Your task to perform on an android device: Go to settings Image 0: 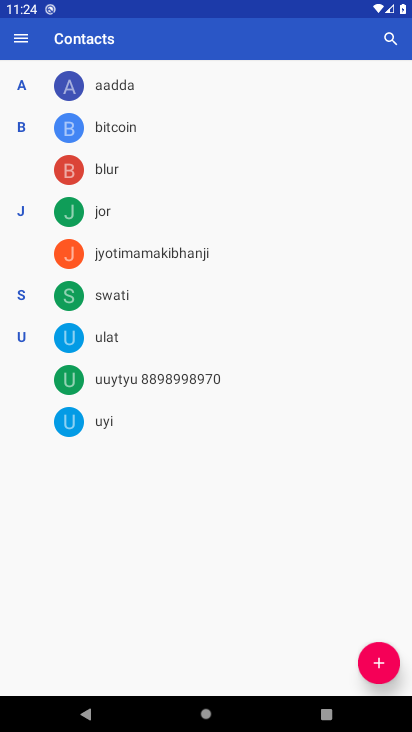
Step 0: press home button
Your task to perform on an android device: Go to settings Image 1: 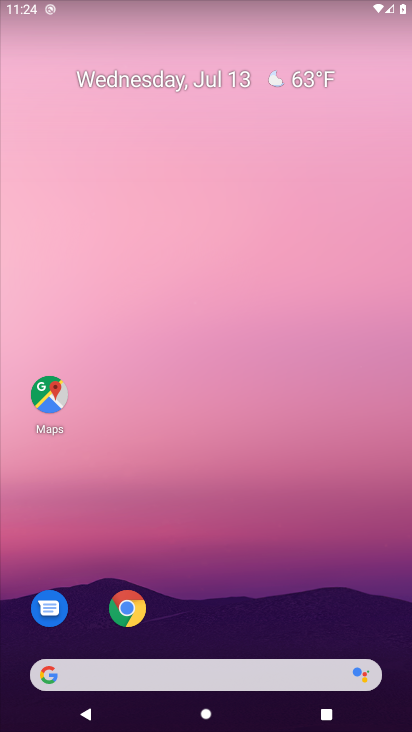
Step 1: drag from (224, 532) to (244, 80)
Your task to perform on an android device: Go to settings Image 2: 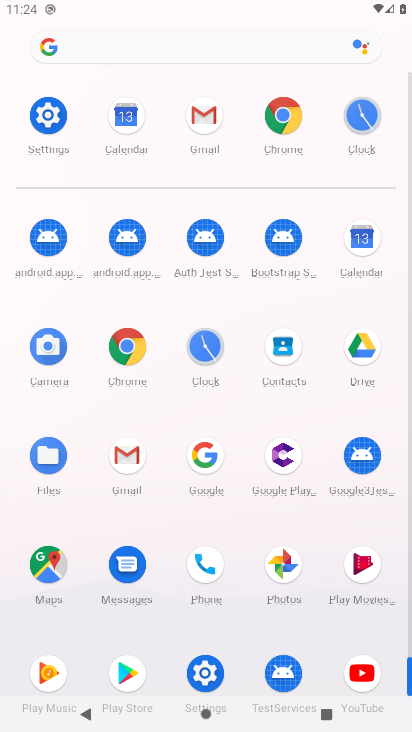
Step 2: click (48, 122)
Your task to perform on an android device: Go to settings Image 3: 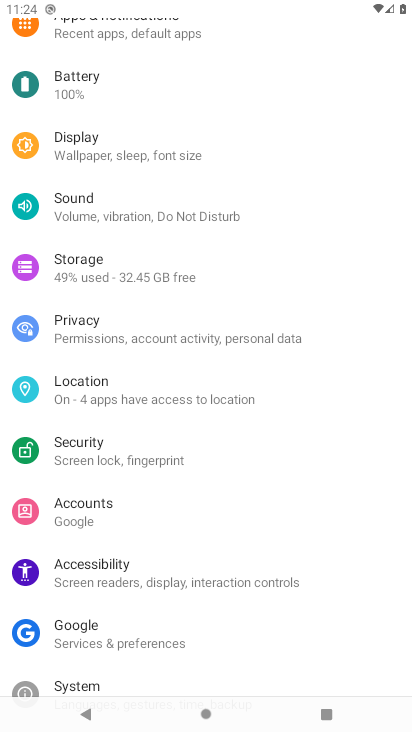
Step 3: task complete